Your task to perform on an android device: Turn on the flashlight Image 0: 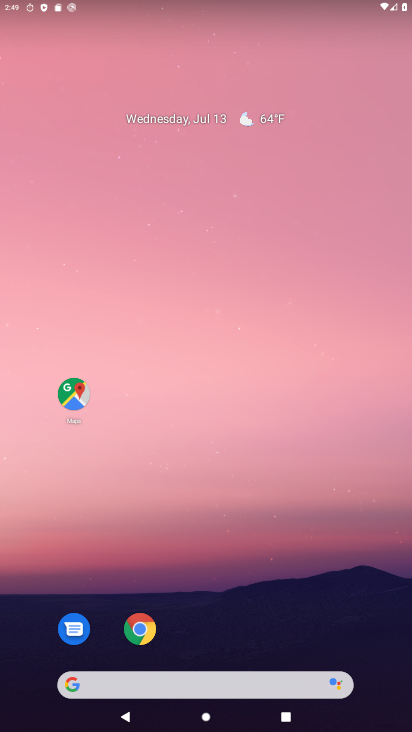
Step 0: drag from (233, 18) to (157, 474)
Your task to perform on an android device: Turn on the flashlight Image 1: 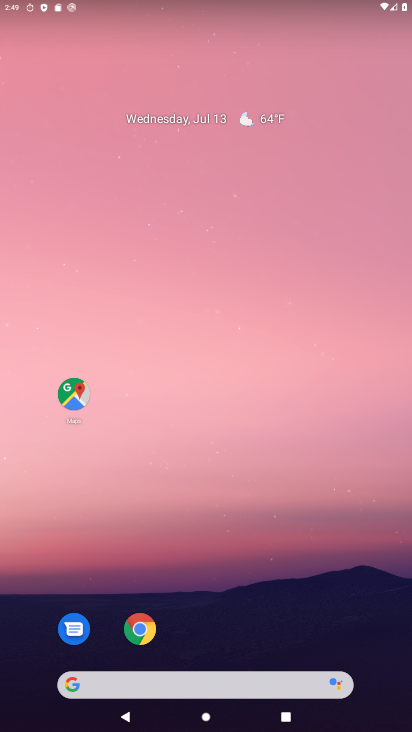
Step 1: drag from (213, 55) to (279, 673)
Your task to perform on an android device: Turn on the flashlight Image 2: 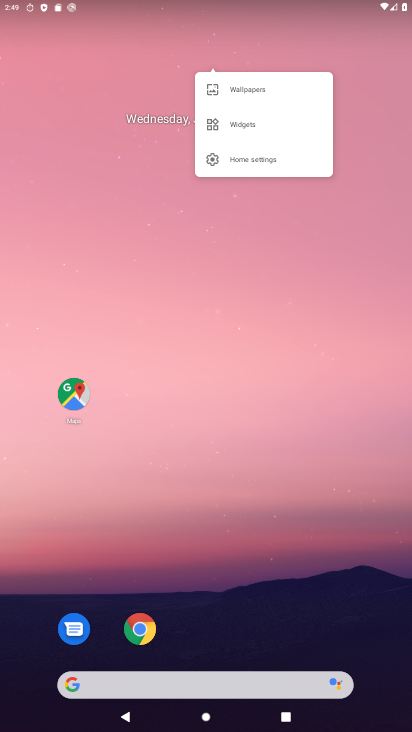
Step 2: click (241, 273)
Your task to perform on an android device: Turn on the flashlight Image 3: 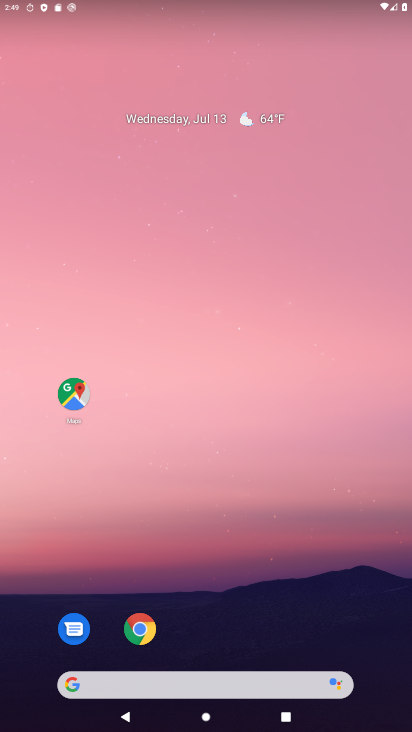
Step 3: click (111, 420)
Your task to perform on an android device: Turn on the flashlight Image 4: 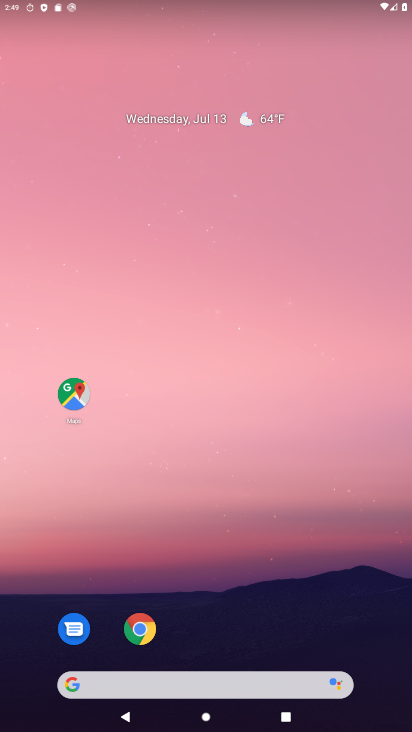
Step 4: task complete